Your task to perform on an android device: Go to settings Image 0: 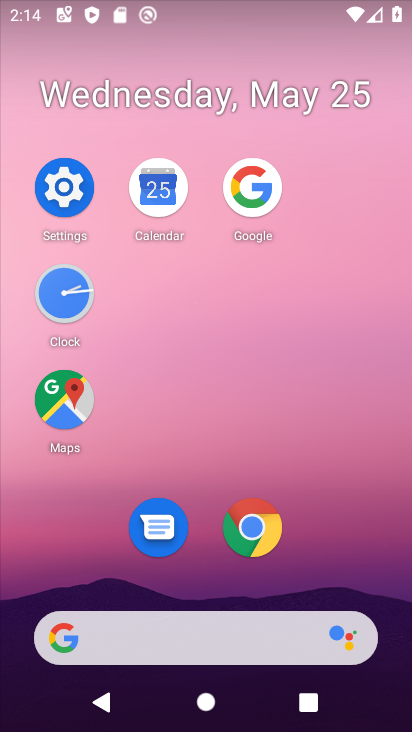
Step 0: click (64, 193)
Your task to perform on an android device: Go to settings Image 1: 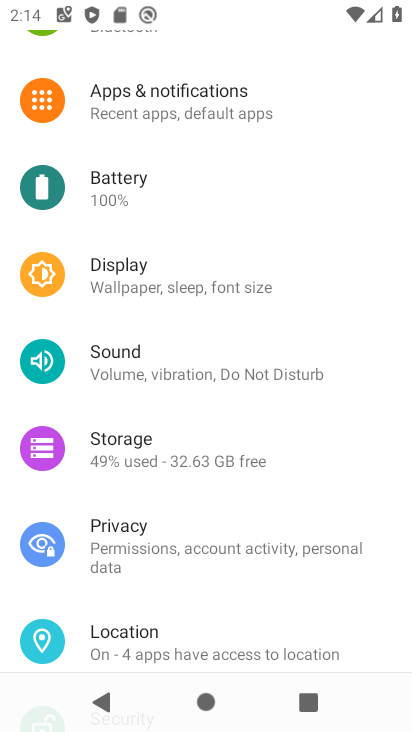
Step 1: task complete